Your task to perform on an android device: Go to accessibility settings Image 0: 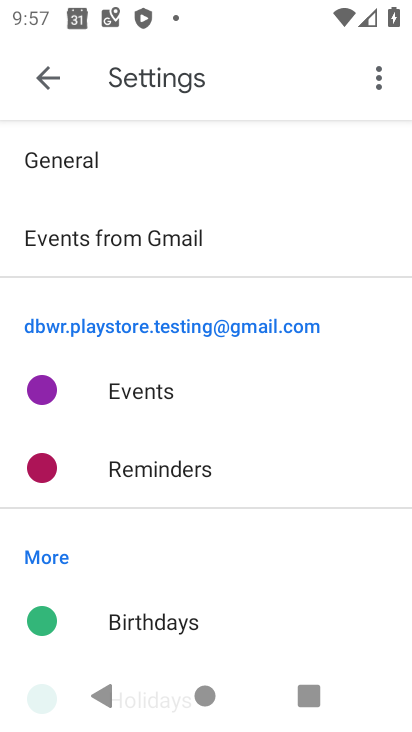
Step 0: press home button
Your task to perform on an android device: Go to accessibility settings Image 1: 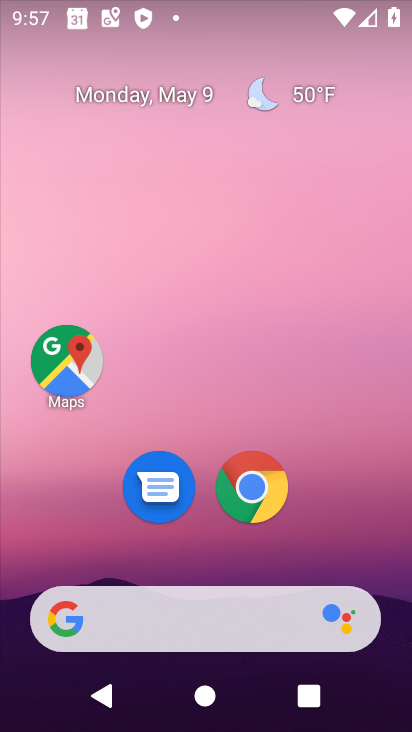
Step 1: drag from (23, 635) to (321, 162)
Your task to perform on an android device: Go to accessibility settings Image 2: 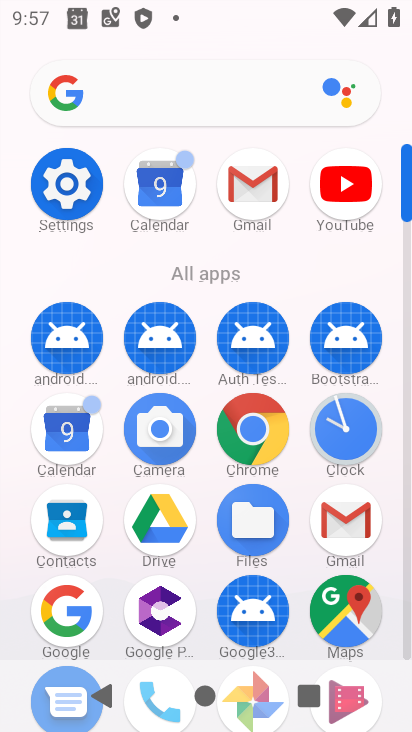
Step 2: click (65, 187)
Your task to perform on an android device: Go to accessibility settings Image 3: 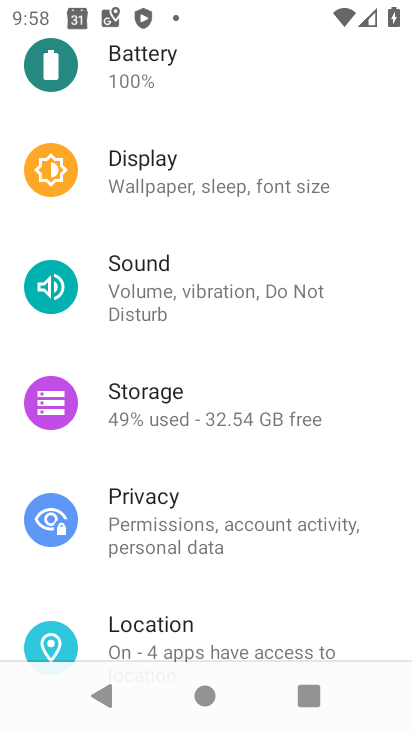
Step 3: drag from (181, 579) to (374, 57)
Your task to perform on an android device: Go to accessibility settings Image 4: 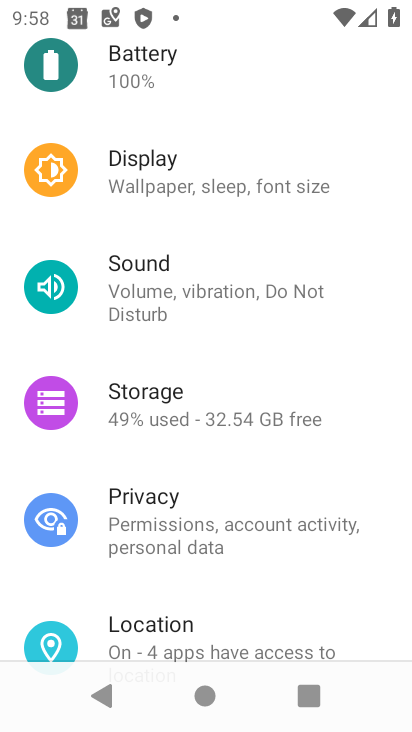
Step 4: drag from (134, 620) to (316, 158)
Your task to perform on an android device: Go to accessibility settings Image 5: 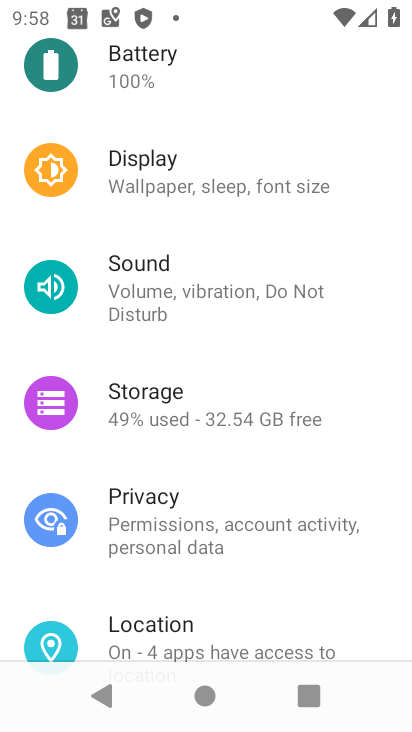
Step 5: drag from (81, 603) to (292, 214)
Your task to perform on an android device: Go to accessibility settings Image 6: 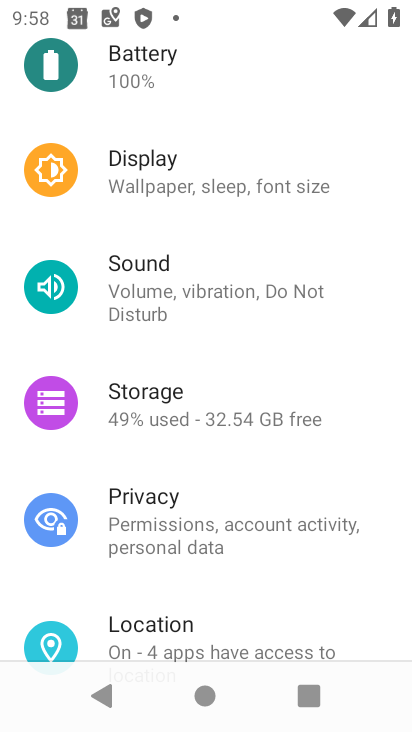
Step 6: drag from (21, 648) to (410, 61)
Your task to perform on an android device: Go to accessibility settings Image 7: 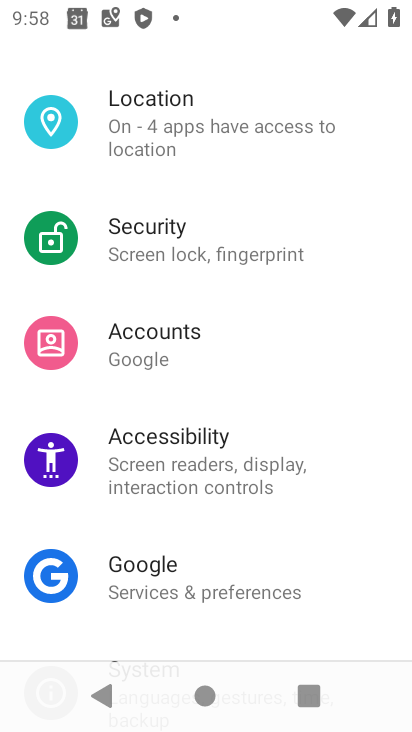
Step 7: click (171, 456)
Your task to perform on an android device: Go to accessibility settings Image 8: 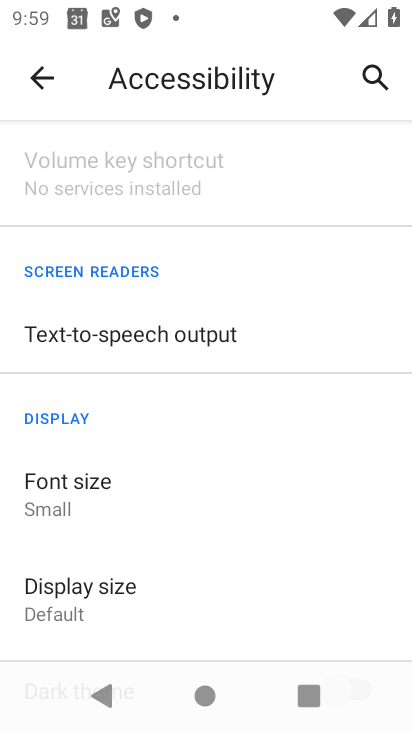
Step 8: task complete